Your task to perform on an android device: turn on the 24-hour format for clock Image 0: 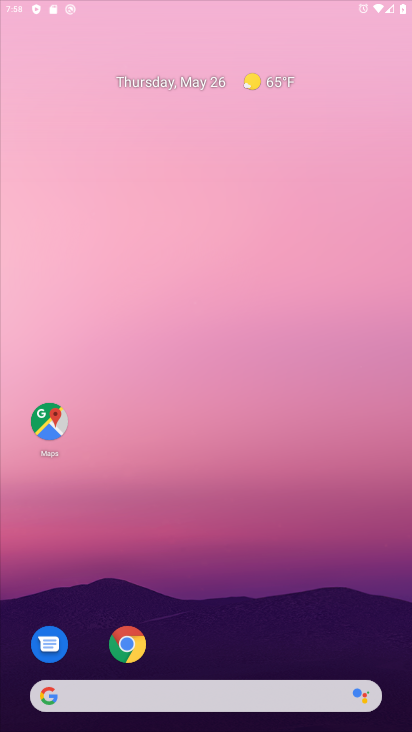
Step 0: drag from (314, 17) to (106, 0)
Your task to perform on an android device: turn on the 24-hour format for clock Image 1: 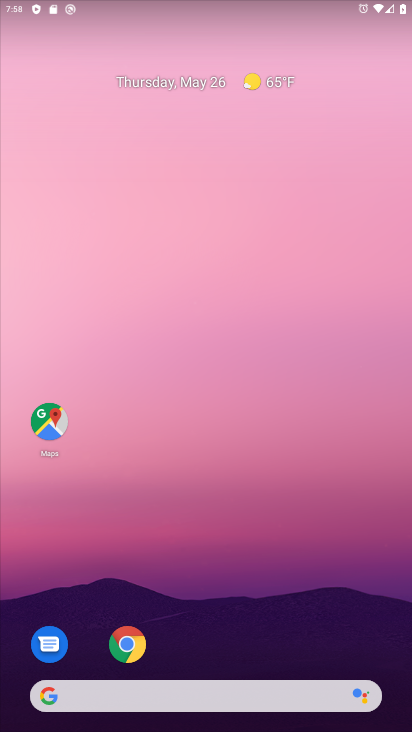
Step 1: drag from (215, 635) to (221, 339)
Your task to perform on an android device: turn on the 24-hour format for clock Image 2: 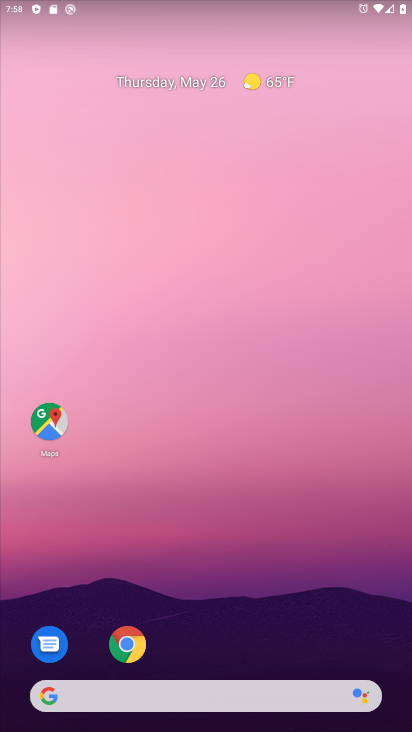
Step 2: drag from (217, 590) to (249, 375)
Your task to perform on an android device: turn on the 24-hour format for clock Image 3: 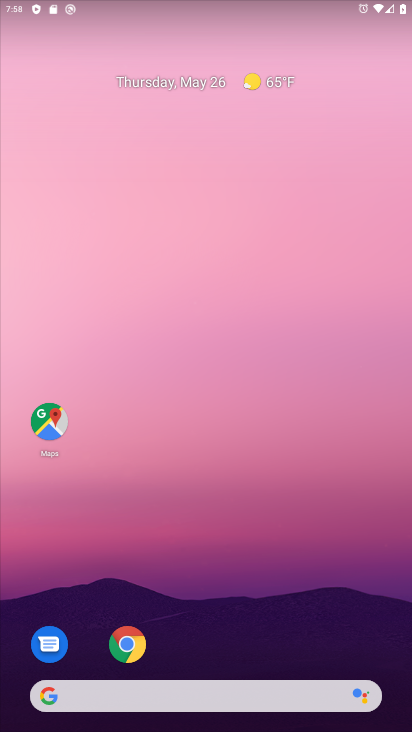
Step 3: drag from (199, 657) to (300, 18)
Your task to perform on an android device: turn on the 24-hour format for clock Image 4: 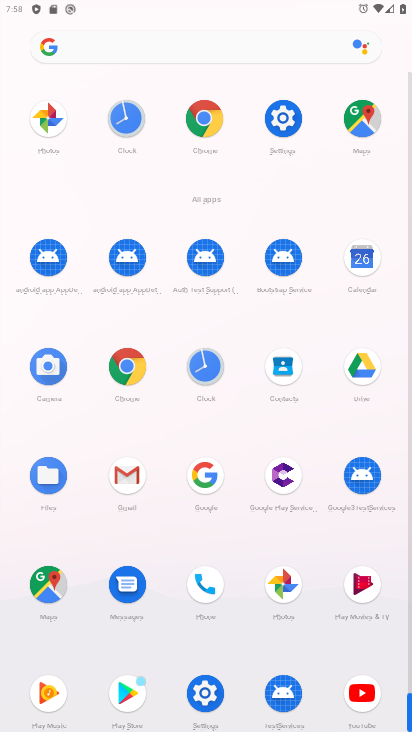
Step 4: click (199, 365)
Your task to perform on an android device: turn on the 24-hour format for clock Image 5: 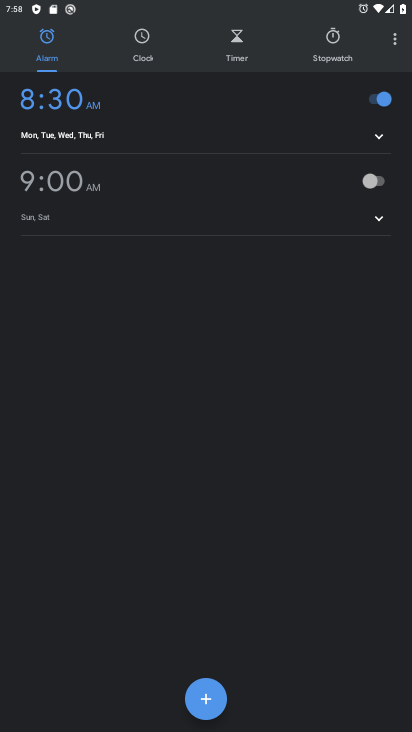
Step 5: click (398, 42)
Your task to perform on an android device: turn on the 24-hour format for clock Image 6: 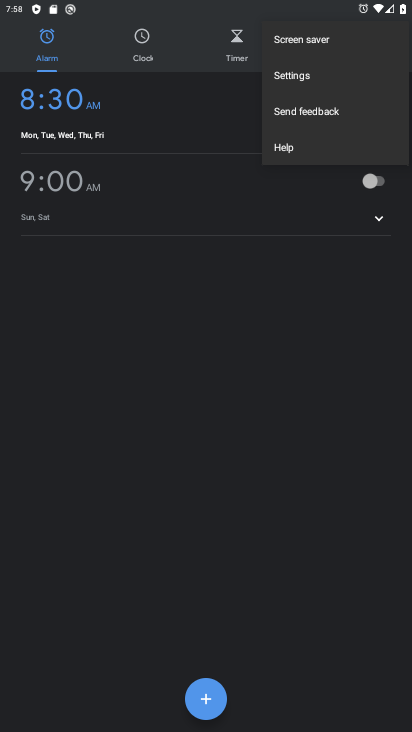
Step 6: click (321, 81)
Your task to perform on an android device: turn on the 24-hour format for clock Image 7: 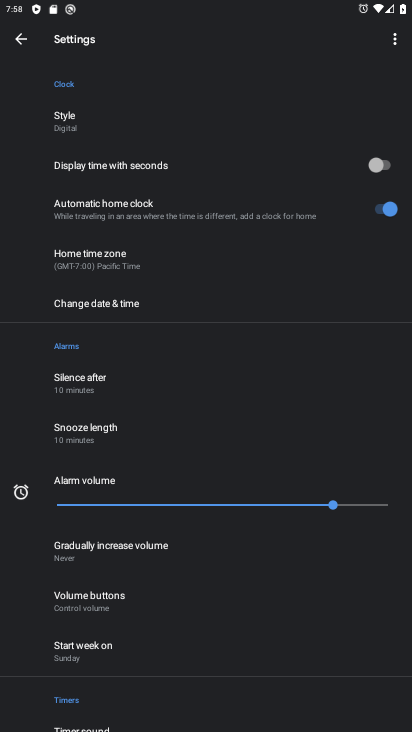
Step 7: drag from (206, 598) to (304, 265)
Your task to perform on an android device: turn on the 24-hour format for clock Image 8: 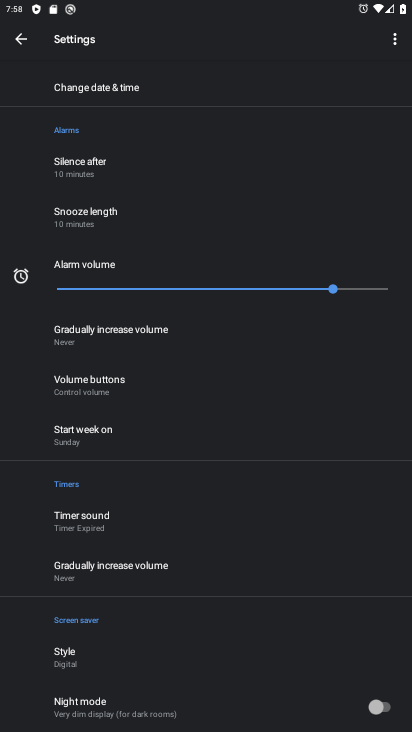
Step 8: drag from (172, 144) to (291, 553)
Your task to perform on an android device: turn on the 24-hour format for clock Image 9: 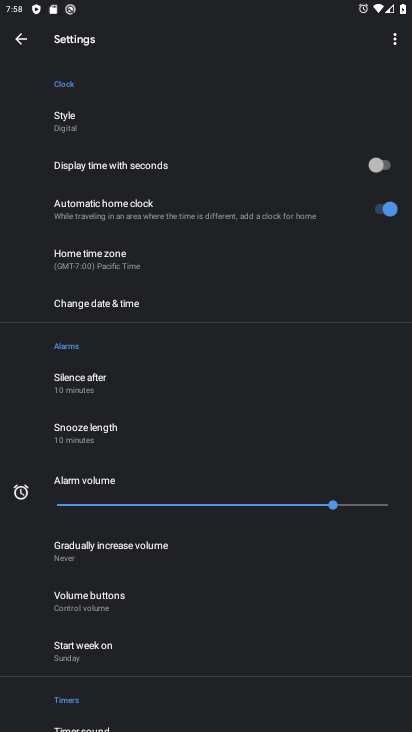
Step 9: click (99, 309)
Your task to perform on an android device: turn on the 24-hour format for clock Image 10: 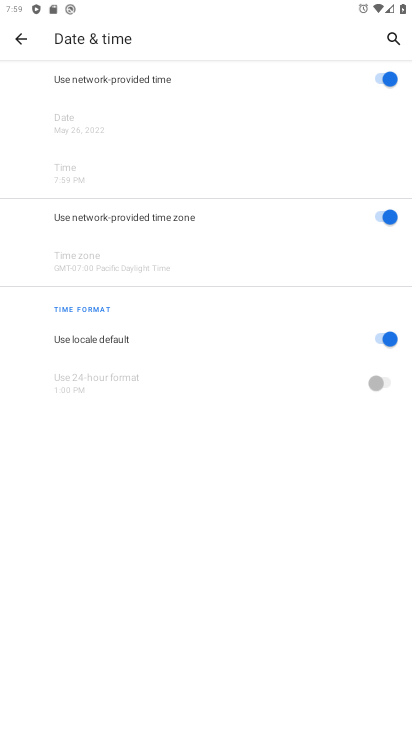
Step 10: click (388, 352)
Your task to perform on an android device: turn on the 24-hour format for clock Image 11: 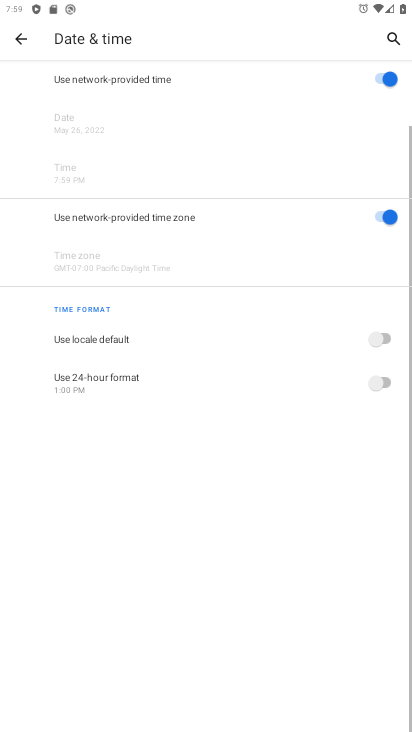
Step 11: click (373, 370)
Your task to perform on an android device: turn on the 24-hour format for clock Image 12: 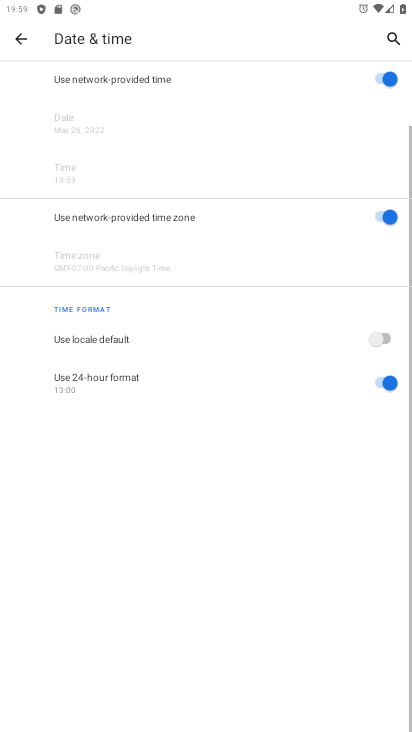
Step 12: task complete